Your task to perform on an android device: Go to ESPN.com Image 0: 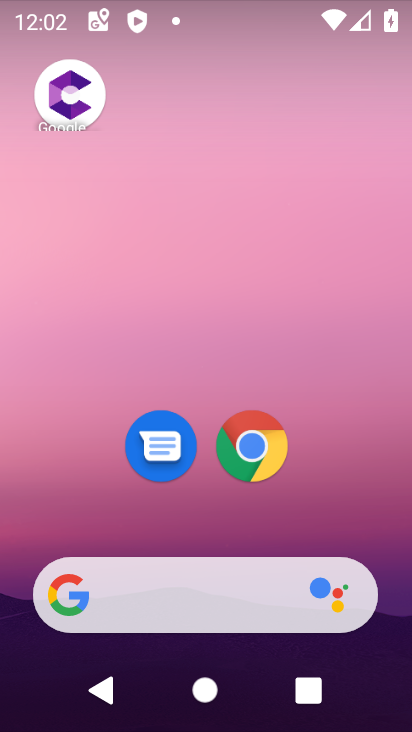
Step 0: click (308, 39)
Your task to perform on an android device: Go to ESPN.com Image 1: 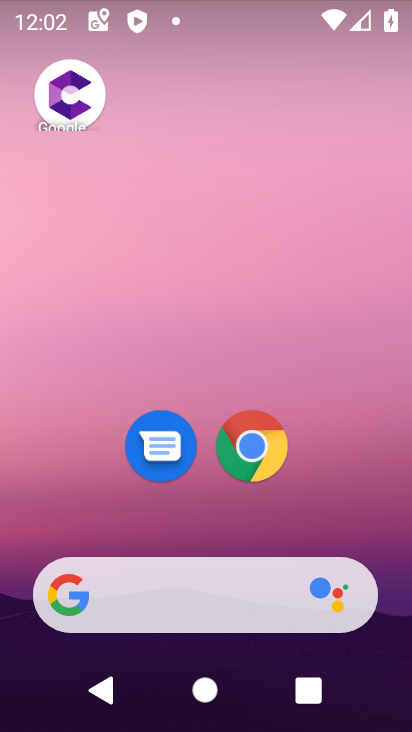
Step 1: click (286, 448)
Your task to perform on an android device: Go to ESPN.com Image 2: 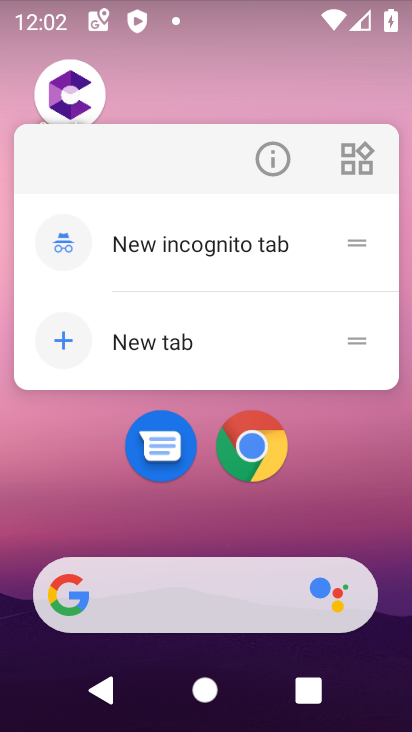
Step 2: click (264, 445)
Your task to perform on an android device: Go to ESPN.com Image 3: 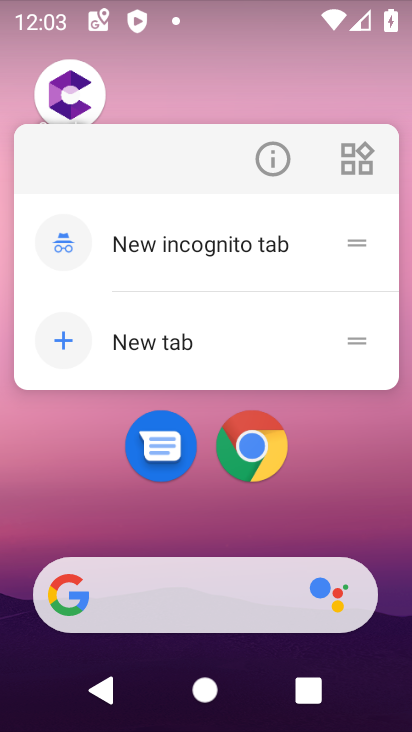
Step 3: click (261, 458)
Your task to perform on an android device: Go to ESPN.com Image 4: 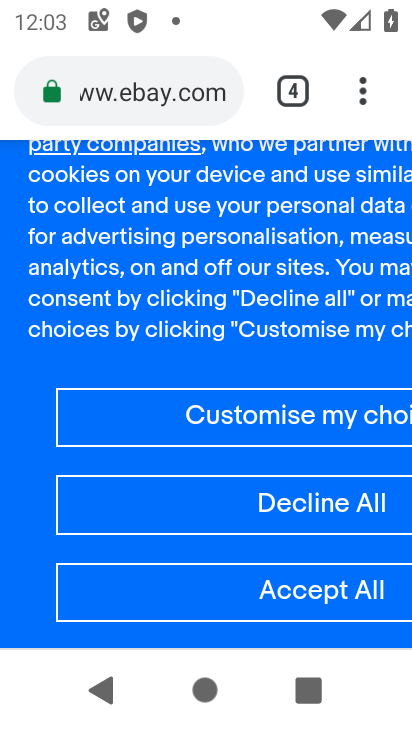
Step 4: click (153, 98)
Your task to perform on an android device: Go to ESPN.com Image 5: 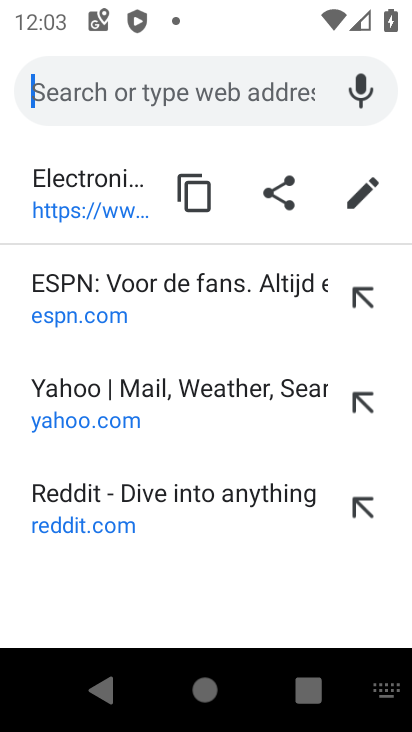
Step 5: click (131, 304)
Your task to perform on an android device: Go to ESPN.com Image 6: 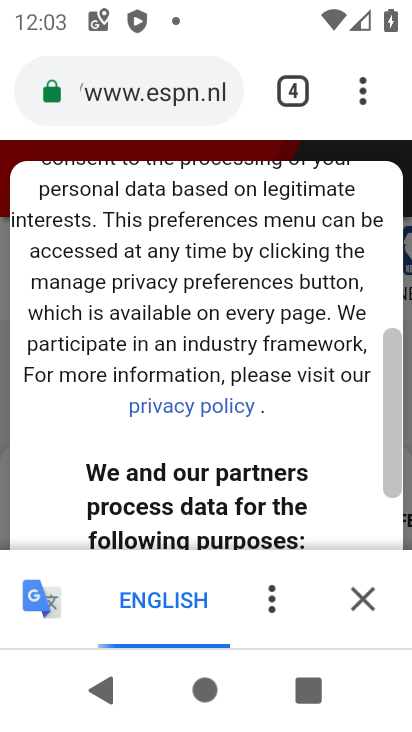
Step 6: click (367, 605)
Your task to perform on an android device: Go to ESPN.com Image 7: 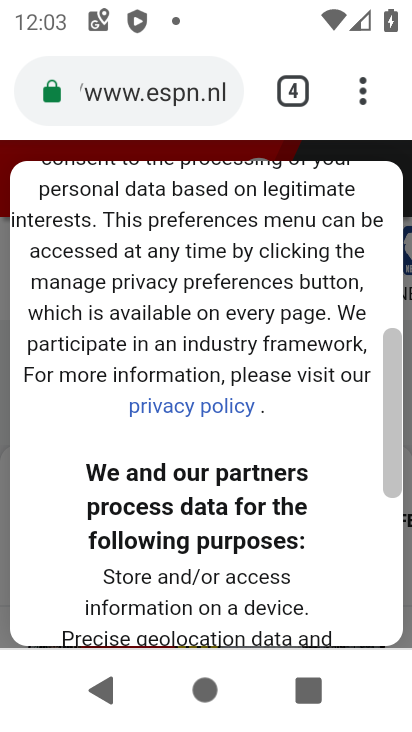
Step 7: task complete